Your task to perform on an android device: open a new tab in the chrome app Image 0: 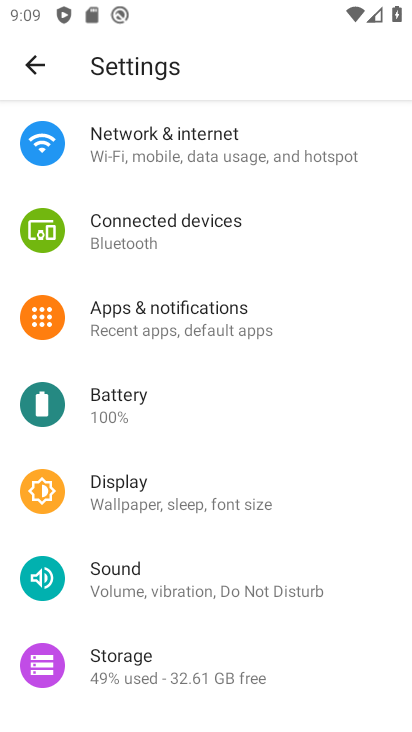
Step 0: press home button
Your task to perform on an android device: open a new tab in the chrome app Image 1: 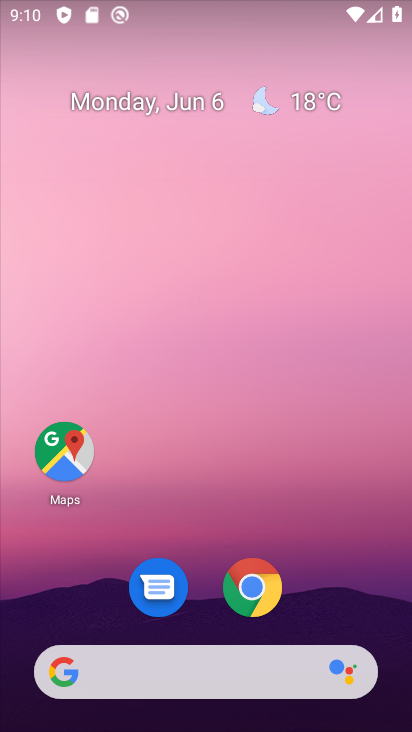
Step 1: click (258, 582)
Your task to perform on an android device: open a new tab in the chrome app Image 2: 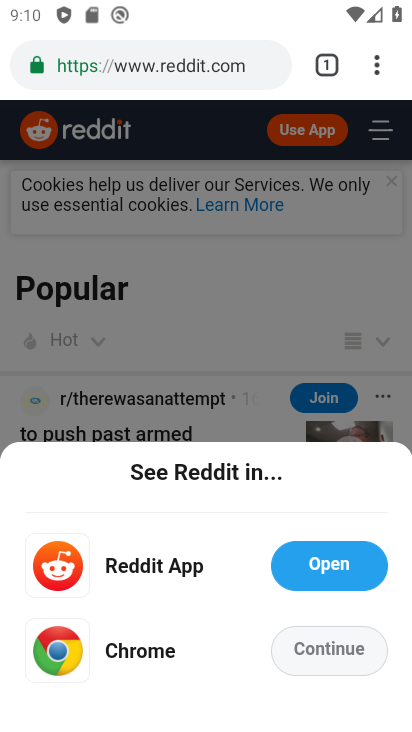
Step 2: click (379, 60)
Your task to perform on an android device: open a new tab in the chrome app Image 3: 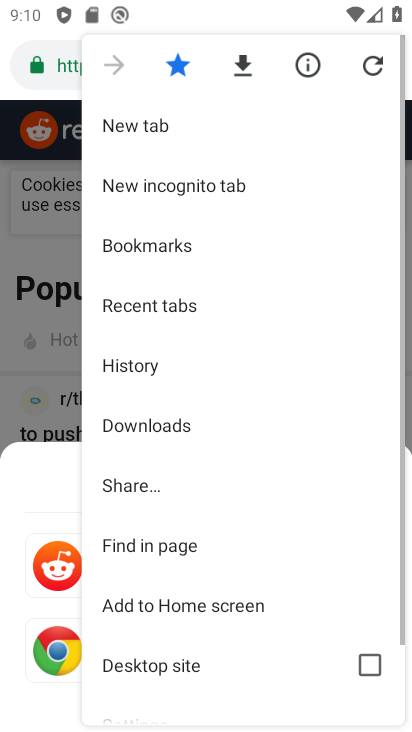
Step 3: click (246, 105)
Your task to perform on an android device: open a new tab in the chrome app Image 4: 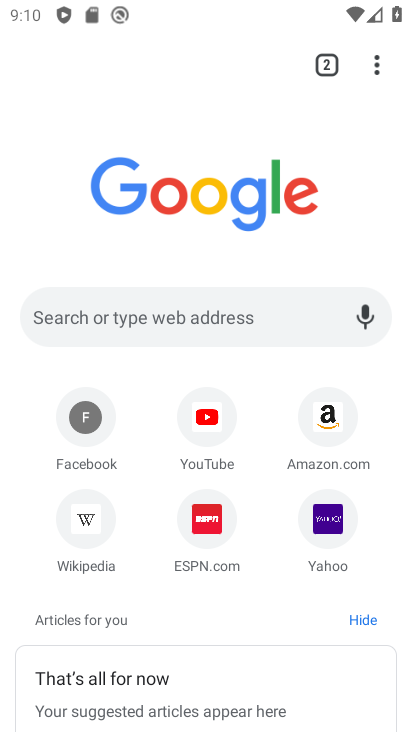
Step 4: task complete